Your task to perform on an android device: change the clock display to show seconds Image 0: 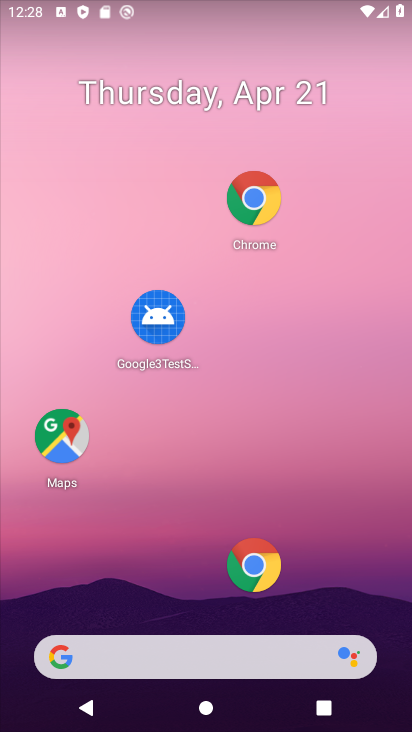
Step 0: drag from (193, 615) to (264, 93)
Your task to perform on an android device: change the clock display to show seconds Image 1: 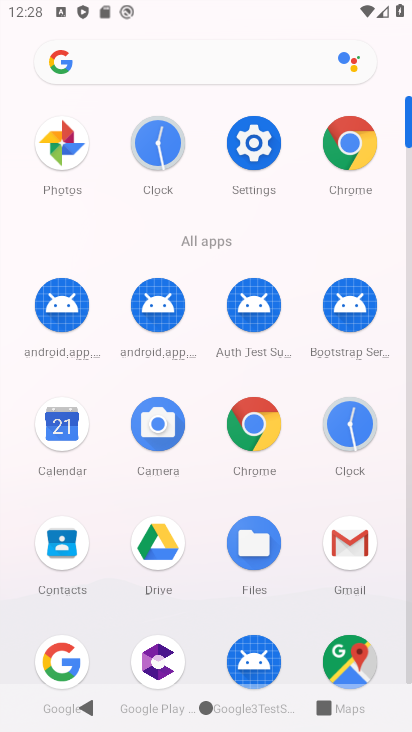
Step 1: click (156, 138)
Your task to perform on an android device: change the clock display to show seconds Image 2: 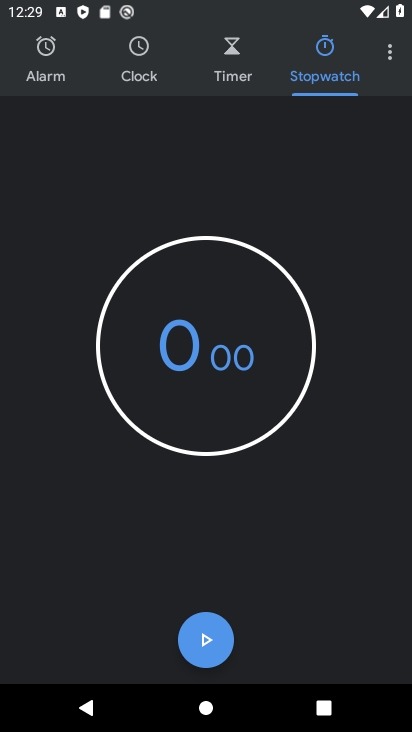
Step 2: click (387, 55)
Your task to perform on an android device: change the clock display to show seconds Image 3: 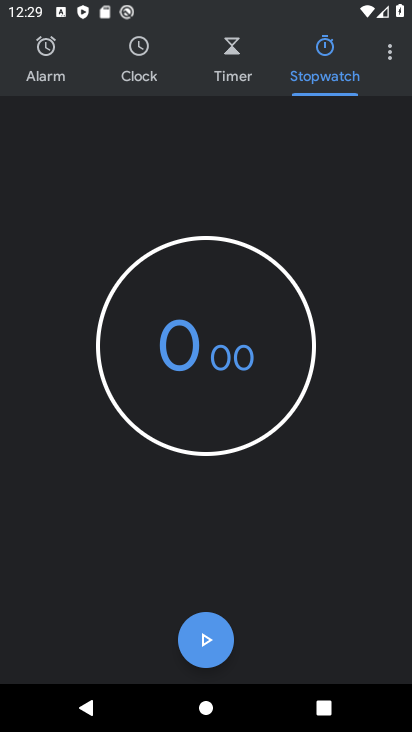
Step 3: click (395, 175)
Your task to perform on an android device: change the clock display to show seconds Image 4: 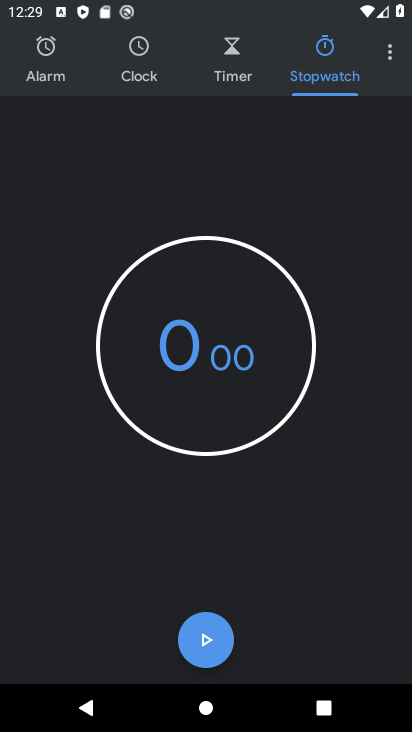
Step 4: click (392, 55)
Your task to perform on an android device: change the clock display to show seconds Image 5: 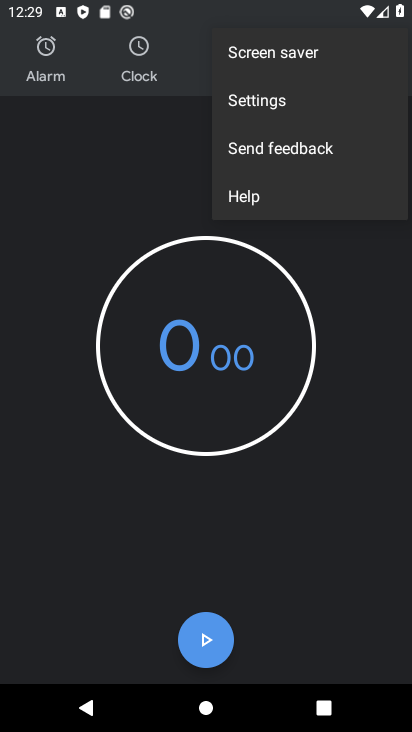
Step 5: click (280, 106)
Your task to perform on an android device: change the clock display to show seconds Image 6: 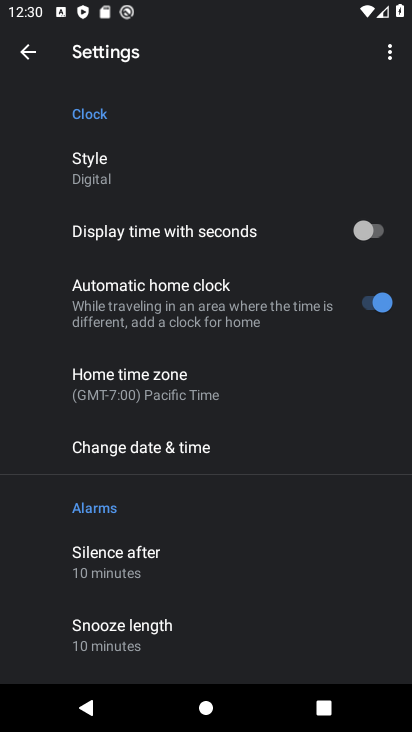
Step 6: click (382, 230)
Your task to perform on an android device: change the clock display to show seconds Image 7: 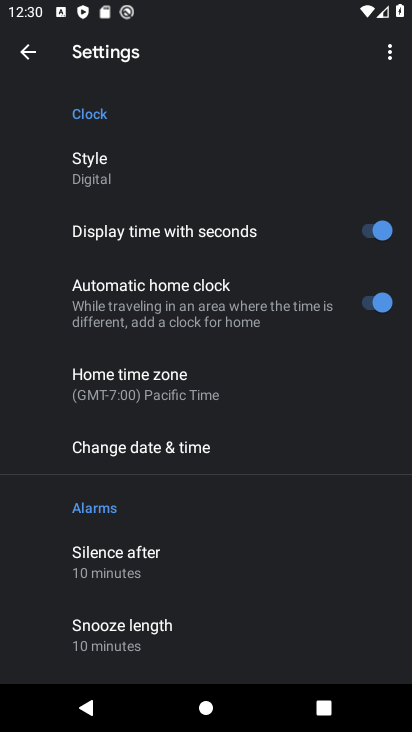
Step 7: task complete